Your task to perform on an android device: Go to accessibility settings Image 0: 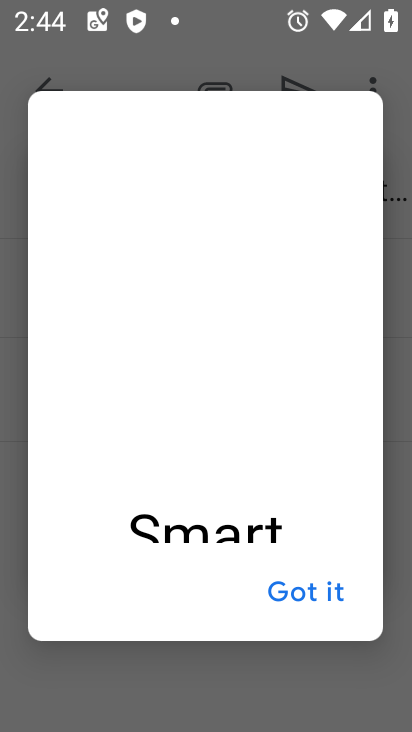
Step 0: press home button
Your task to perform on an android device: Go to accessibility settings Image 1: 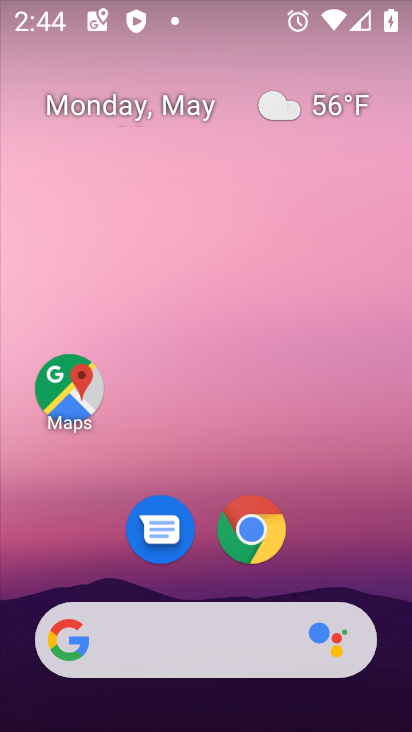
Step 1: drag from (324, 568) to (378, 70)
Your task to perform on an android device: Go to accessibility settings Image 2: 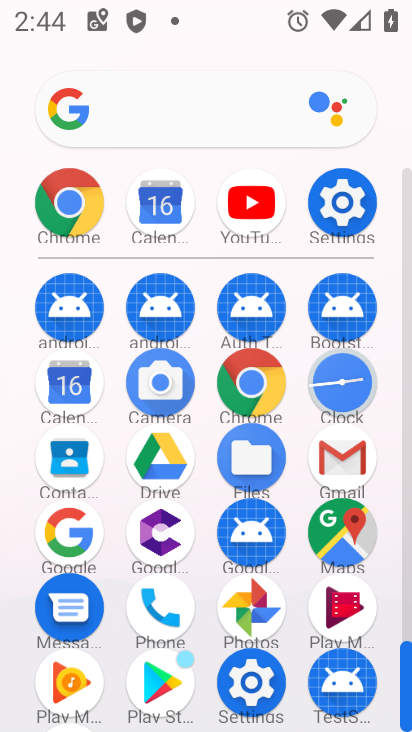
Step 2: click (335, 191)
Your task to perform on an android device: Go to accessibility settings Image 3: 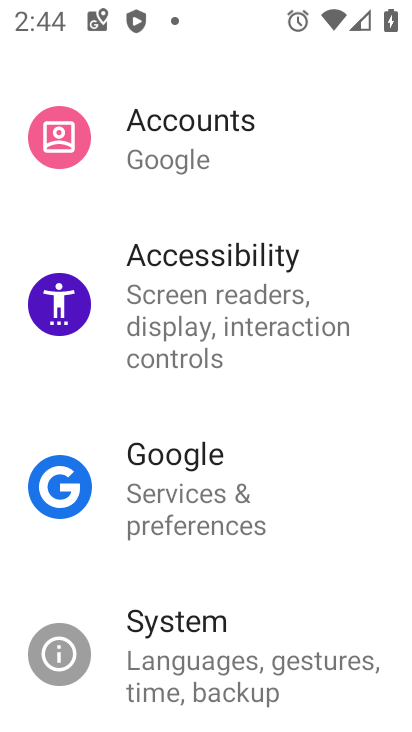
Step 3: click (162, 346)
Your task to perform on an android device: Go to accessibility settings Image 4: 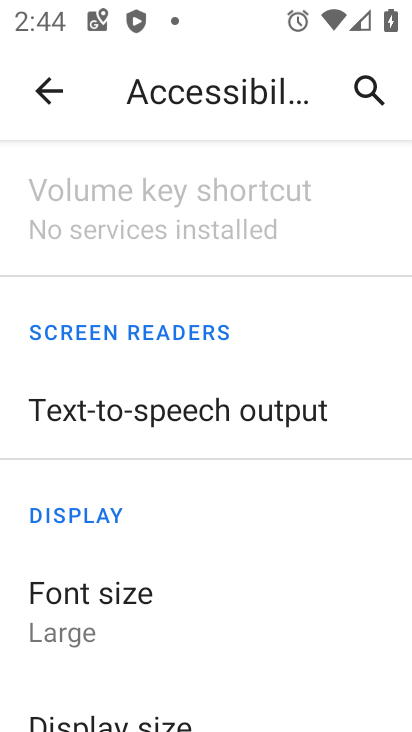
Step 4: task complete